Your task to perform on an android device: read, delete, or share a saved page in the chrome app Image 0: 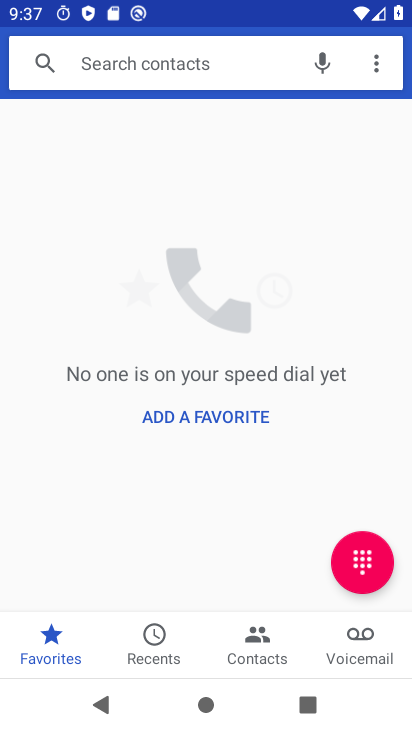
Step 0: press home button
Your task to perform on an android device: read, delete, or share a saved page in the chrome app Image 1: 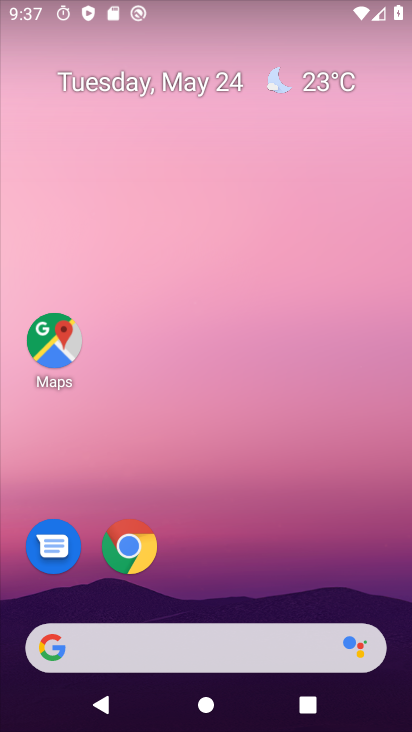
Step 1: click (138, 543)
Your task to perform on an android device: read, delete, or share a saved page in the chrome app Image 2: 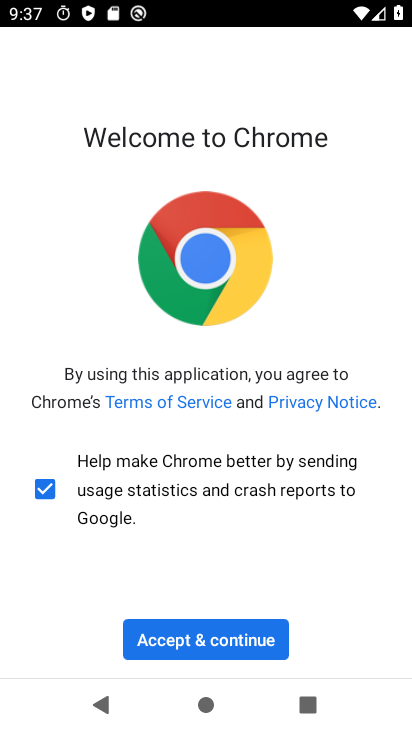
Step 2: click (212, 642)
Your task to perform on an android device: read, delete, or share a saved page in the chrome app Image 3: 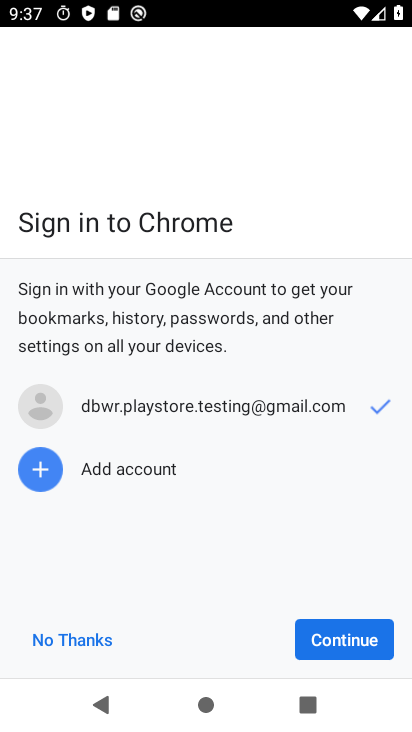
Step 3: click (360, 651)
Your task to perform on an android device: read, delete, or share a saved page in the chrome app Image 4: 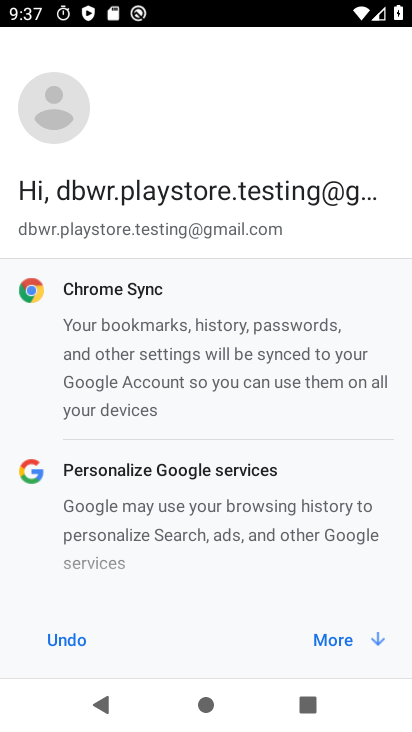
Step 4: click (351, 648)
Your task to perform on an android device: read, delete, or share a saved page in the chrome app Image 5: 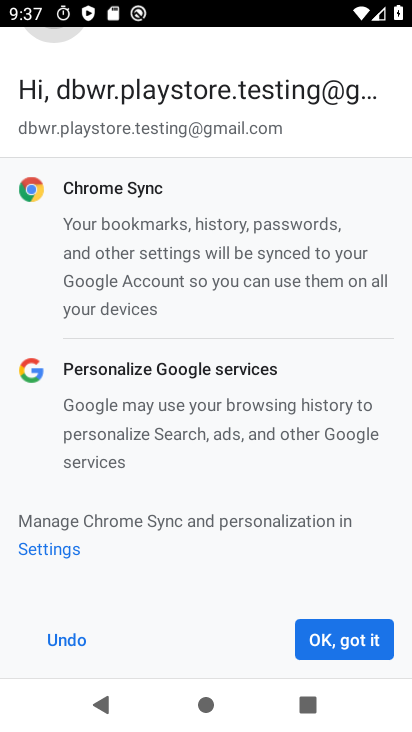
Step 5: click (350, 648)
Your task to perform on an android device: read, delete, or share a saved page in the chrome app Image 6: 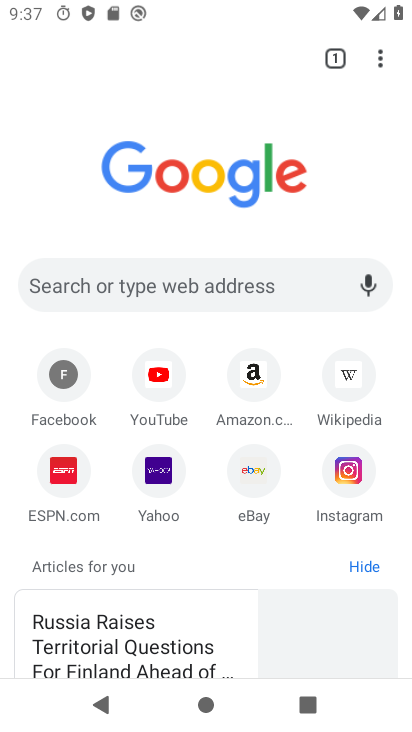
Step 6: click (370, 56)
Your task to perform on an android device: read, delete, or share a saved page in the chrome app Image 7: 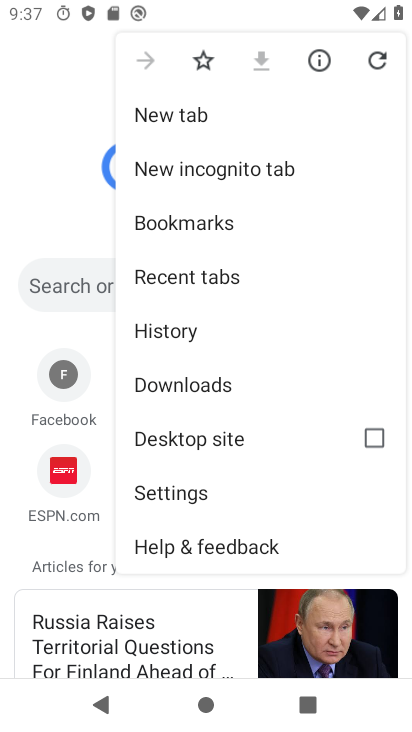
Step 7: click (193, 394)
Your task to perform on an android device: read, delete, or share a saved page in the chrome app Image 8: 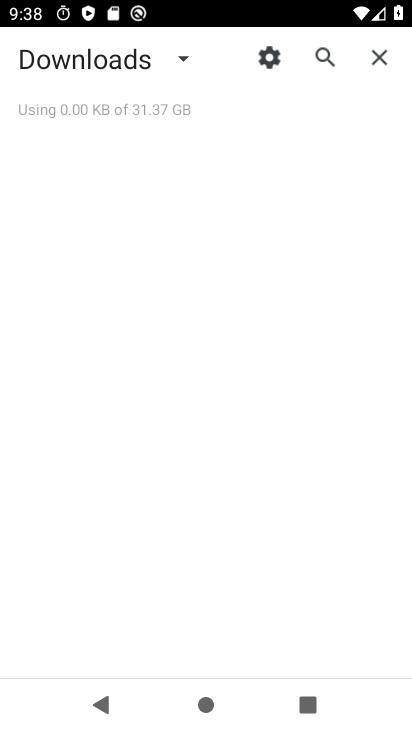
Step 8: task complete